Your task to perform on an android device: What's the weather going to be this weekend? Image 0: 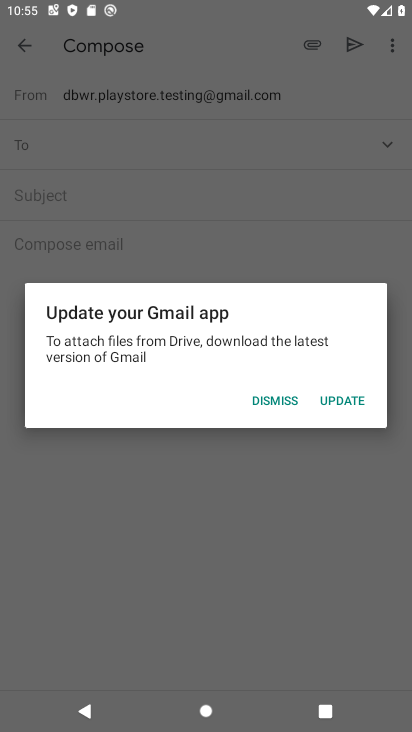
Step 0: press home button
Your task to perform on an android device: What's the weather going to be this weekend? Image 1: 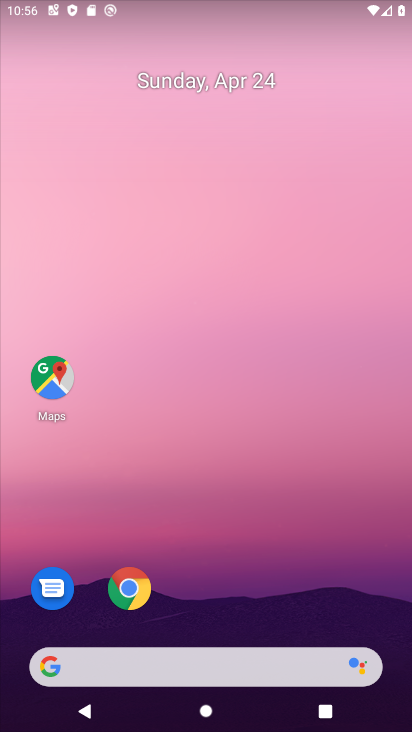
Step 1: drag from (315, 582) to (303, 89)
Your task to perform on an android device: What's the weather going to be this weekend? Image 2: 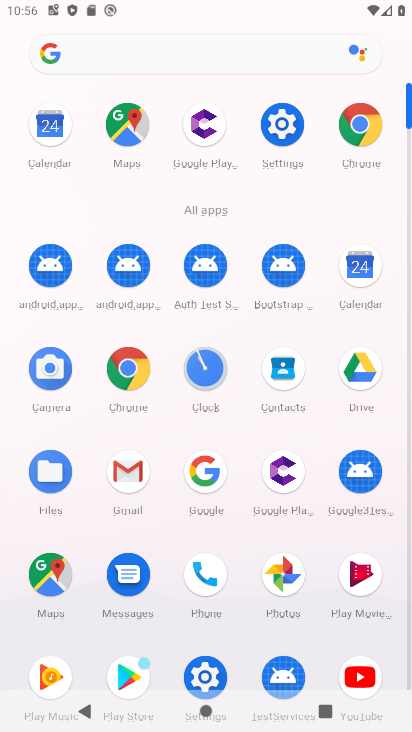
Step 2: click (356, 268)
Your task to perform on an android device: What's the weather going to be this weekend? Image 3: 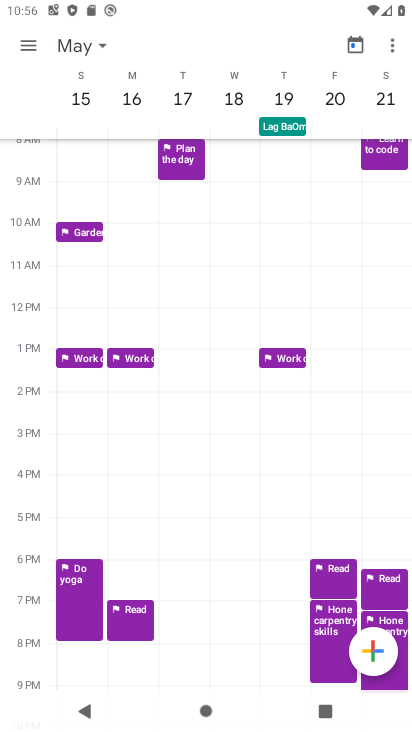
Step 3: press home button
Your task to perform on an android device: What's the weather going to be this weekend? Image 4: 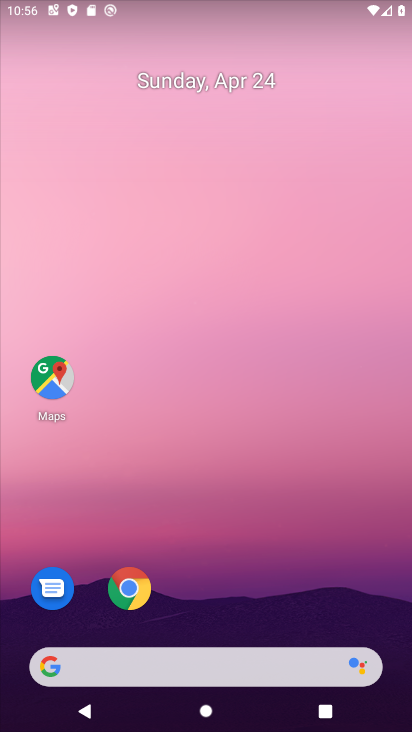
Step 4: drag from (214, 551) to (208, 142)
Your task to perform on an android device: What's the weather going to be this weekend? Image 5: 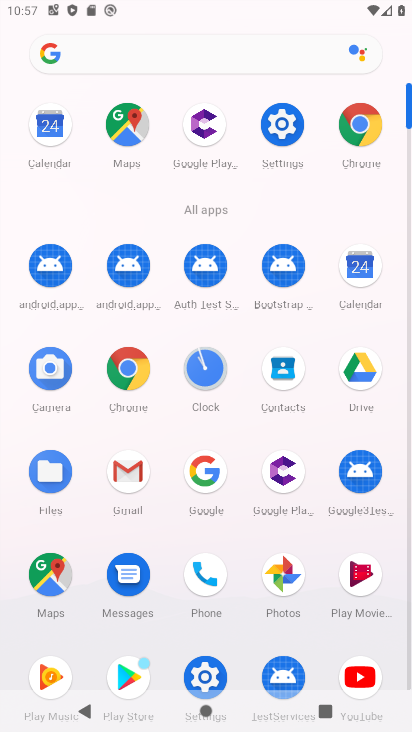
Step 5: click (205, 475)
Your task to perform on an android device: What's the weather going to be this weekend? Image 6: 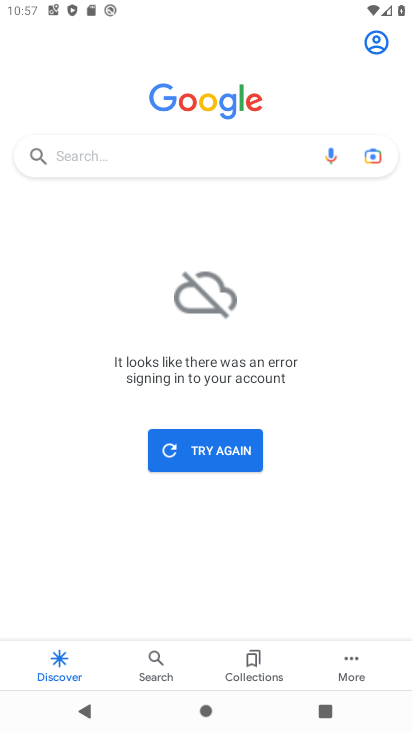
Step 6: click (210, 455)
Your task to perform on an android device: What's the weather going to be this weekend? Image 7: 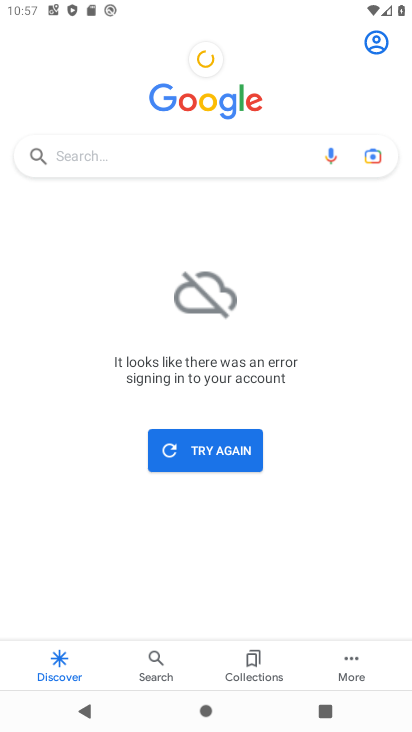
Step 7: click (200, 159)
Your task to perform on an android device: What's the weather going to be this weekend? Image 8: 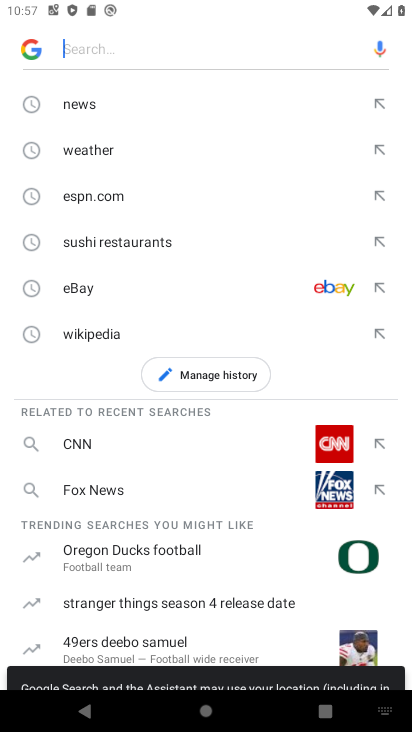
Step 8: click (91, 147)
Your task to perform on an android device: What's the weather going to be this weekend? Image 9: 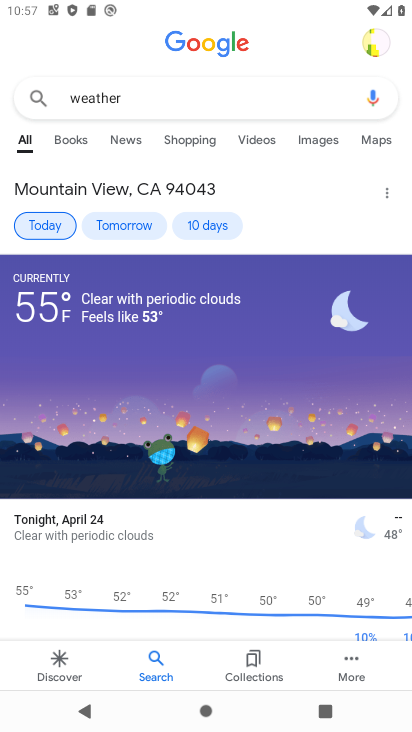
Step 9: click (198, 223)
Your task to perform on an android device: What's the weather going to be this weekend? Image 10: 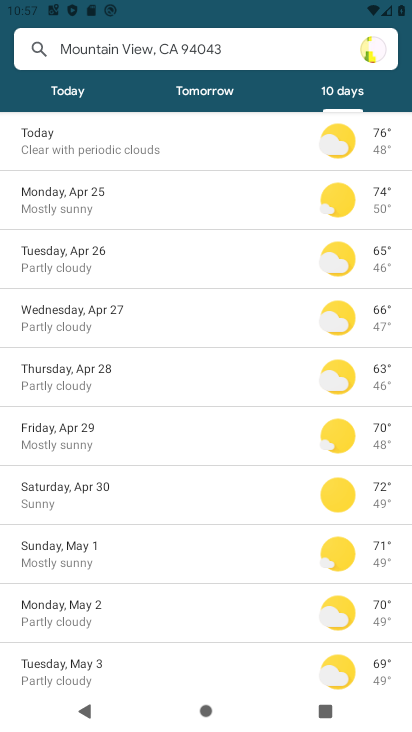
Step 10: task complete